Your task to perform on an android device: see tabs open on other devices in the chrome app Image 0: 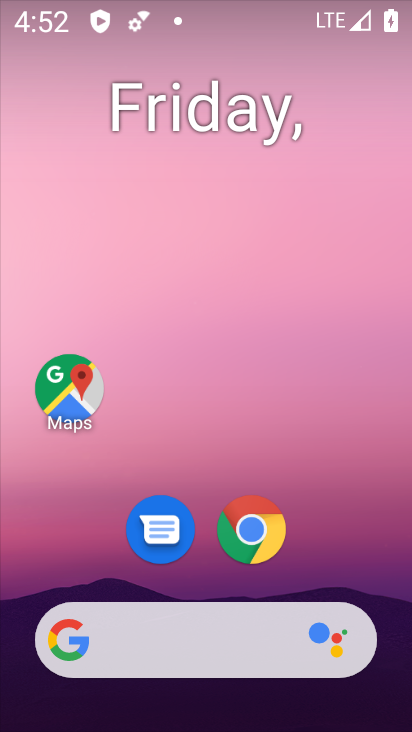
Step 0: click (264, 529)
Your task to perform on an android device: see tabs open on other devices in the chrome app Image 1: 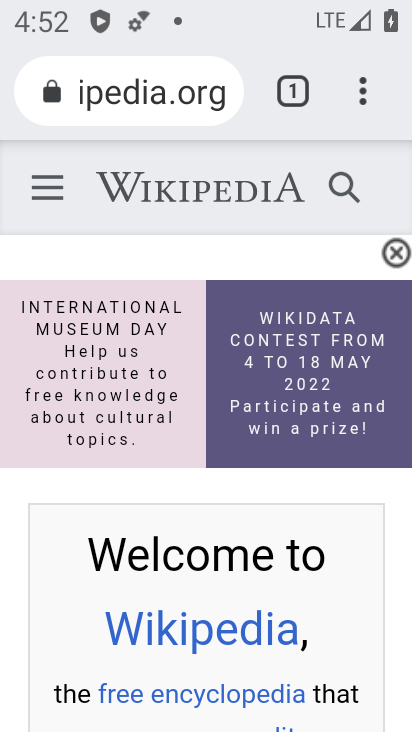
Step 1: click (362, 101)
Your task to perform on an android device: see tabs open on other devices in the chrome app Image 2: 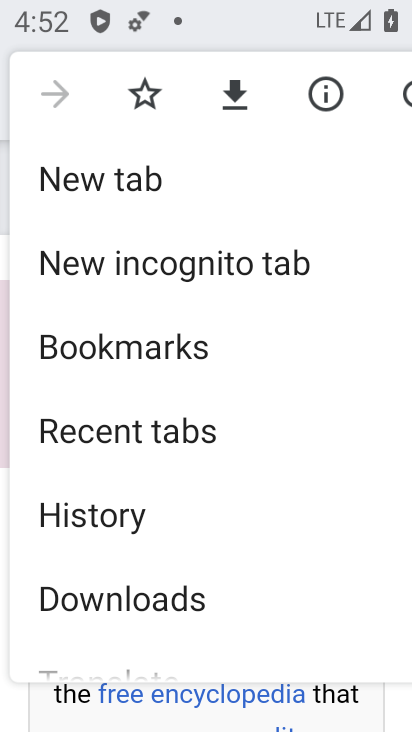
Step 2: click (184, 430)
Your task to perform on an android device: see tabs open on other devices in the chrome app Image 3: 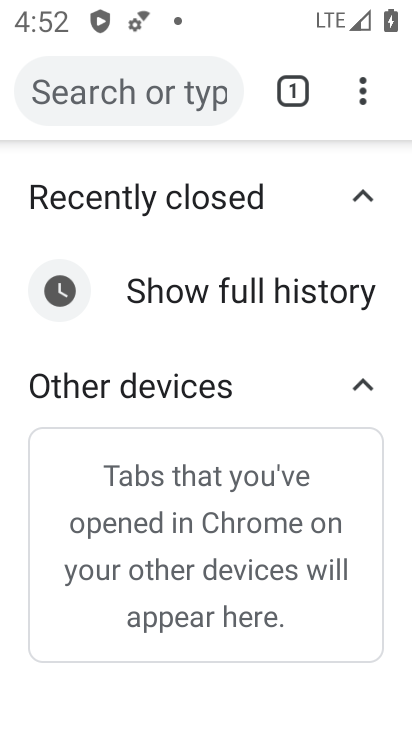
Step 3: task complete